Your task to perform on an android device: toggle pop-ups in chrome Image 0: 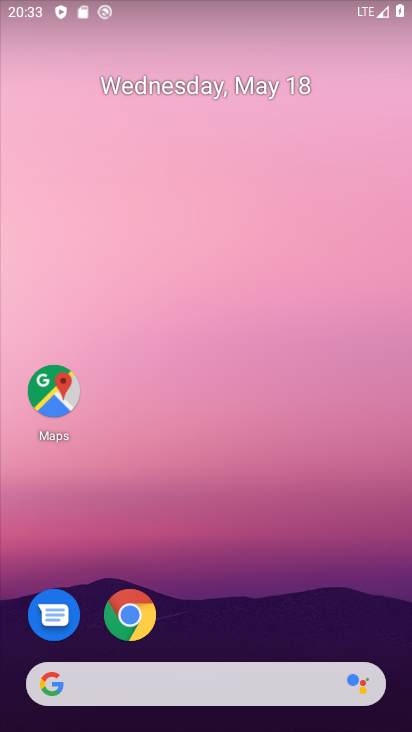
Step 0: click (135, 612)
Your task to perform on an android device: toggle pop-ups in chrome Image 1: 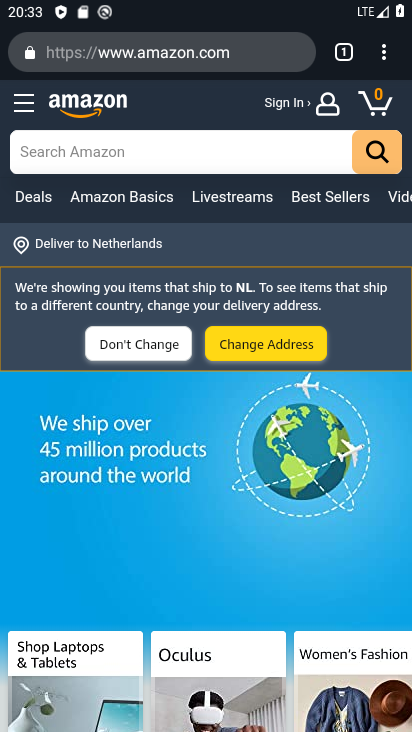
Step 1: click (386, 42)
Your task to perform on an android device: toggle pop-ups in chrome Image 2: 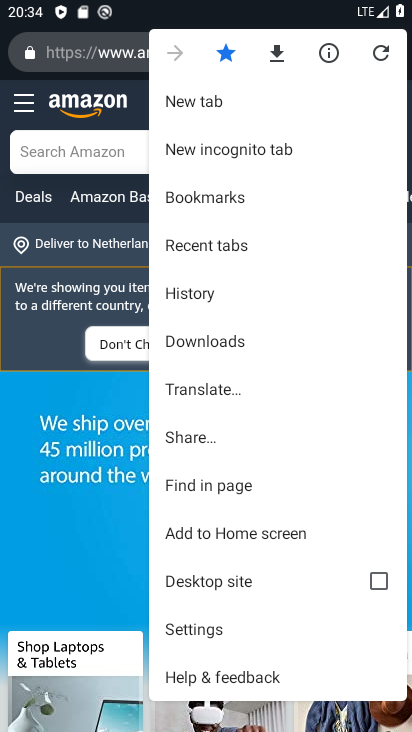
Step 2: click (220, 628)
Your task to perform on an android device: toggle pop-ups in chrome Image 3: 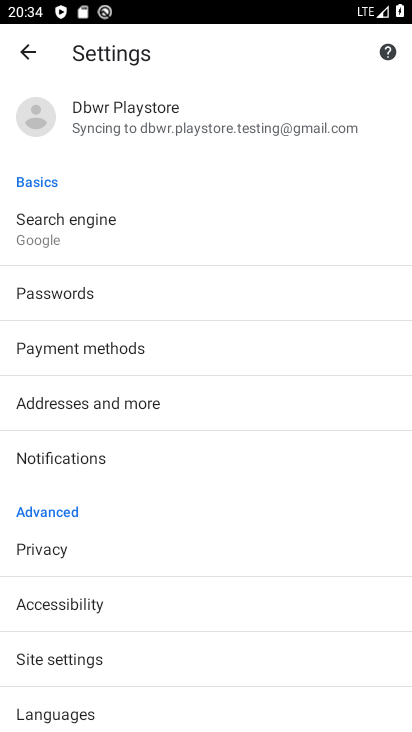
Step 3: click (123, 662)
Your task to perform on an android device: toggle pop-ups in chrome Image 4: 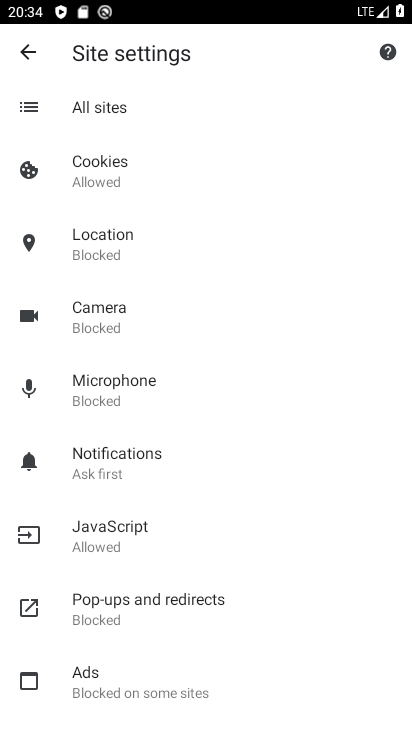
Step 4: click (150, 608)
Your task to perform on an android device: toggle pop-ups in chrome Image 5: 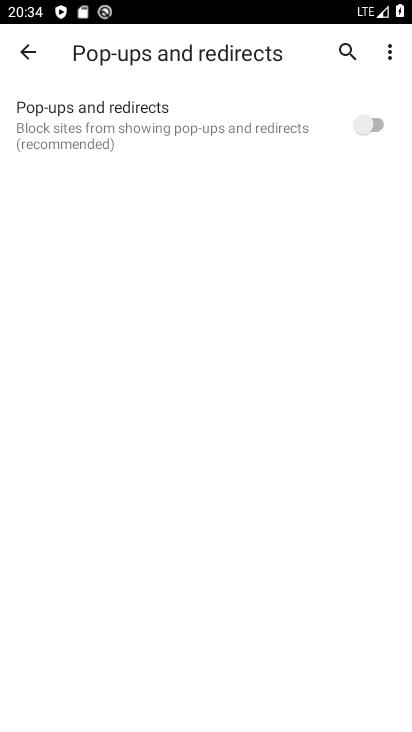
Step 5: click (370, 115)
Your task to perform on an android device: toggle pop-ups in chrome Image 6: 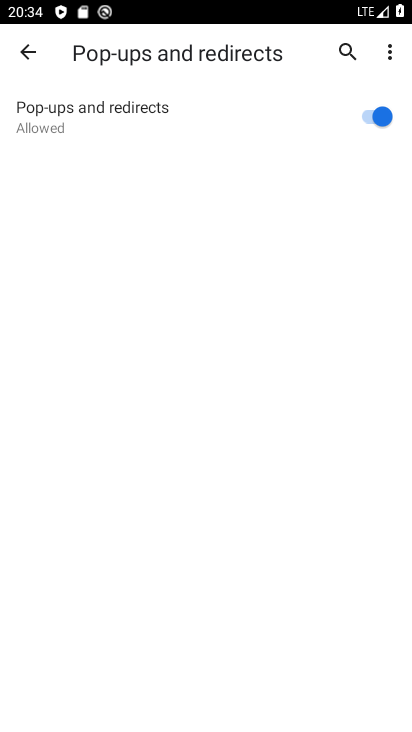
Step 6: task complete